Your task to perform on an android device: move an email to a new category in the gmail app Image 0: 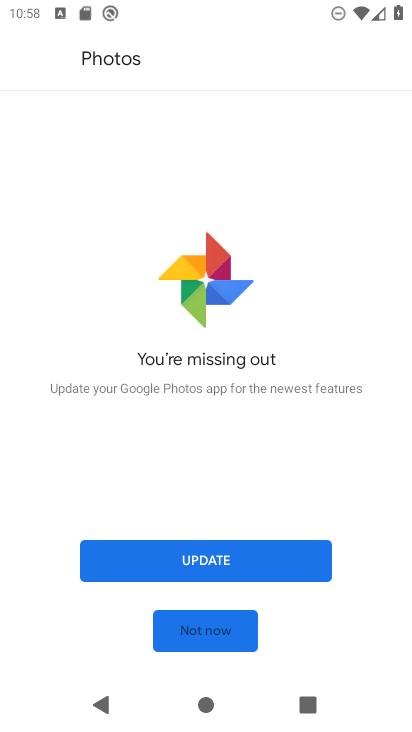
Step 0: press home button
Your task to perform on an android device: move an email to a new category in the gmail app Image 1: 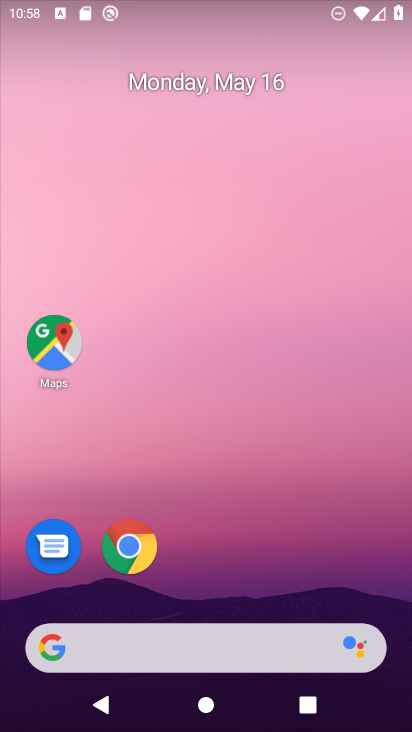
Step 1: drag from (396, 565) to (367, 100)
Your task to perform on an android device: move an email to a new category in the gmail app Image 2: 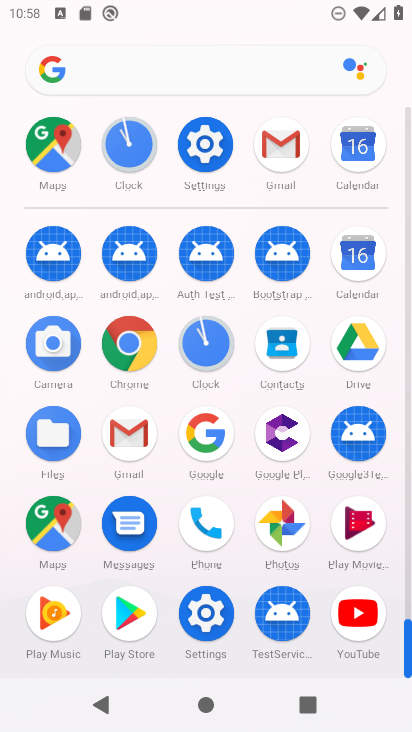
Step 2: click (290, 157)
Your task to perform on an android device: move an email to a new category in the gmail app Image 3: 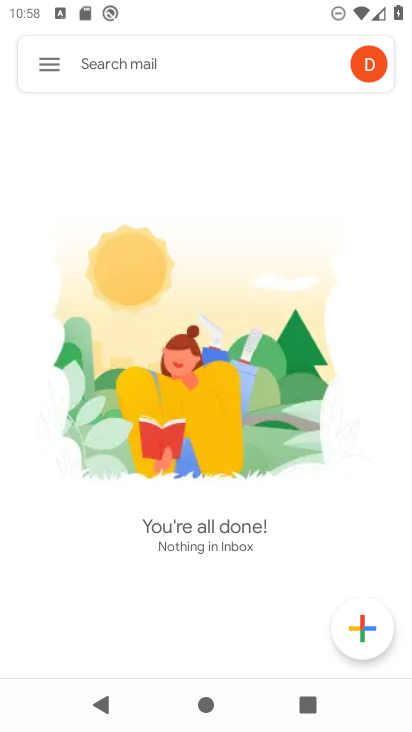
Step 3: task complete